Your task to perform on an android device: Search for sushi restaurants on Maps Image 0: 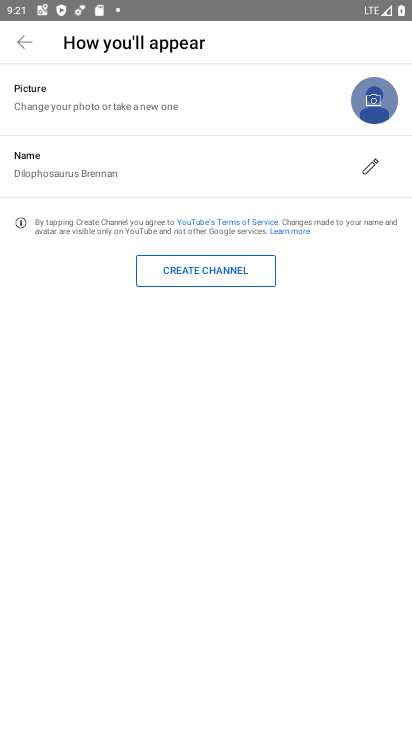
Step 0: press home button
Your task to perform on an android device: Search for sushi restaurants on Maps Image 1: 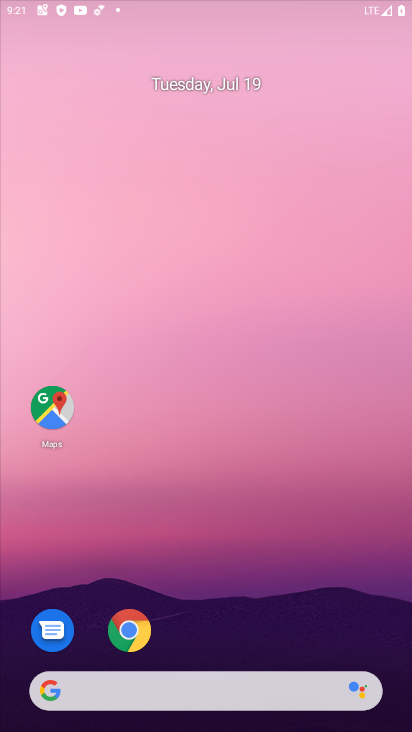
Step 1: drag from (183, 458) to (132, 80)
Your task to perform on an android device: Search for sushi restaurants on Maps Image 2: 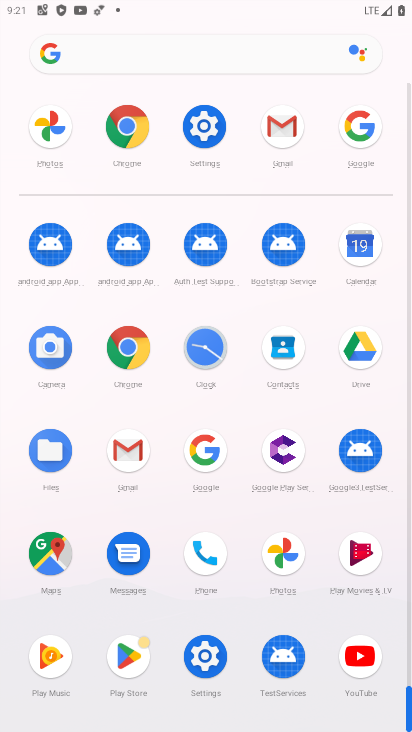
Step 2: click (45, 561)
Your task to perform on an android device: Search for sushi restaurants on Maps Image 3: 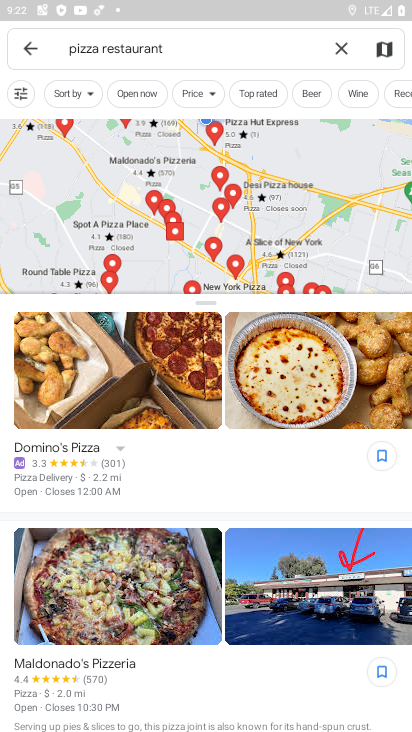
Step 3: click (347, 53)
Your task to perform on an android device: Search for sushi restaurants on Maps Image 4: 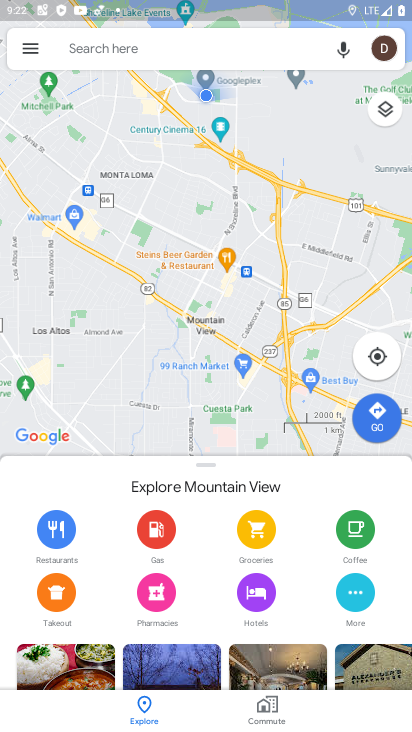
Step 4: click (118, 57)
Your task to perform on an android device: Search for sushi restaurants on Maps Image 5: 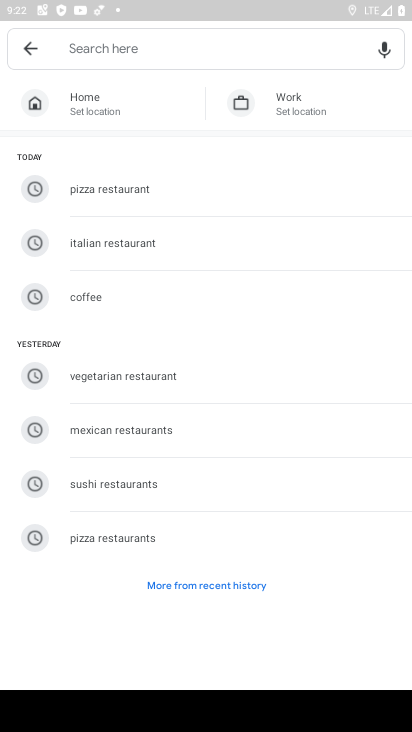
Step 5: click (152, 487)
Your task to perform on an android device: Search for sushi restaurants on Maps Image 6: 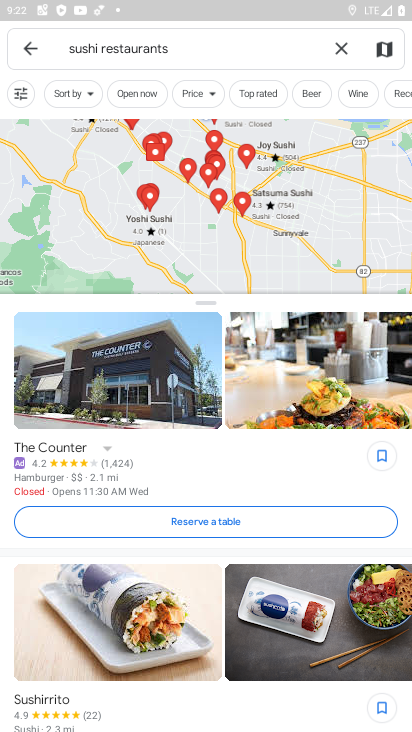
Step 6: task complete